Your task to perform on an android device: What is the news today? Image 0: 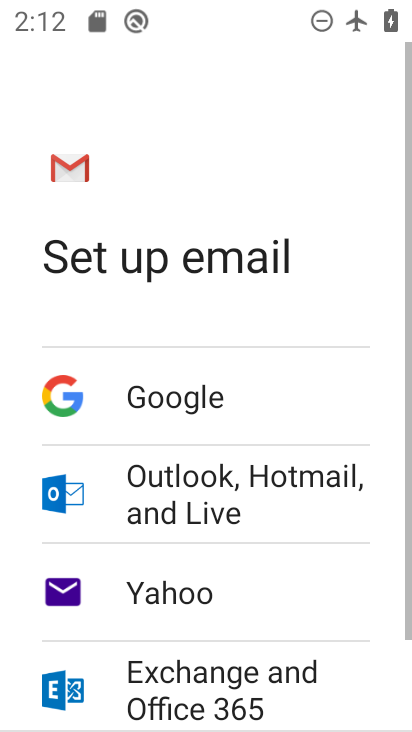
Step 0: press home button
Your task to perform on an android device: What is the news today? Image 1: 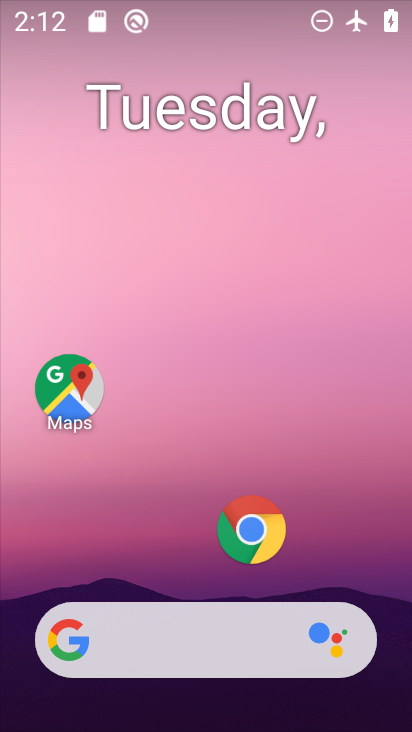
Step 1: click (187, 618)
Your task to perform on an android device: What is the news today? Image 2: 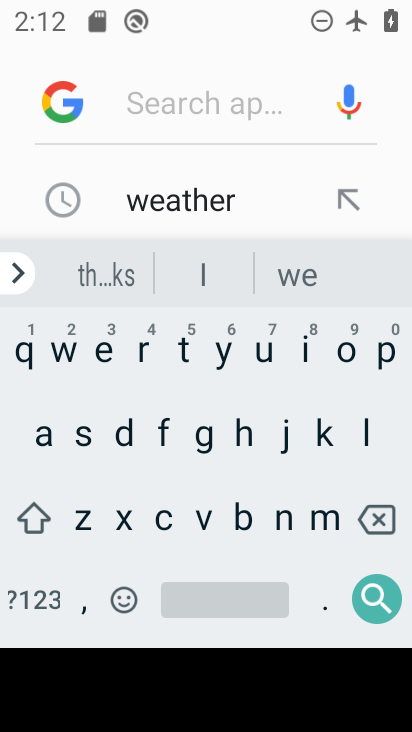
Step 2: click (276, 513)
Your task to perform on an android device: What is the news today? Image 3: 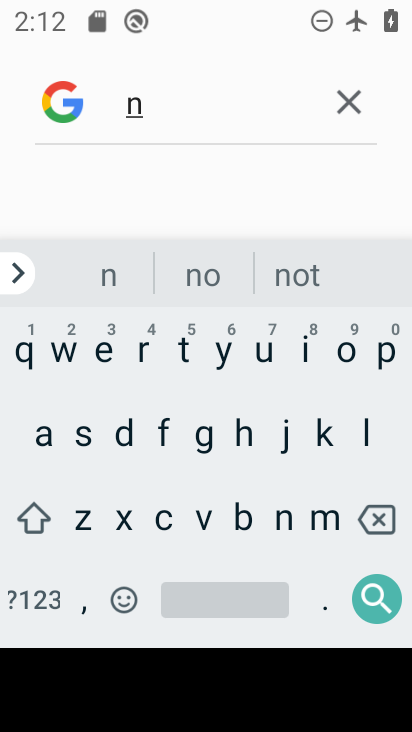
Step 3: click (95, 350)
Your task to perform on an android device: What is the news today? Image 4: 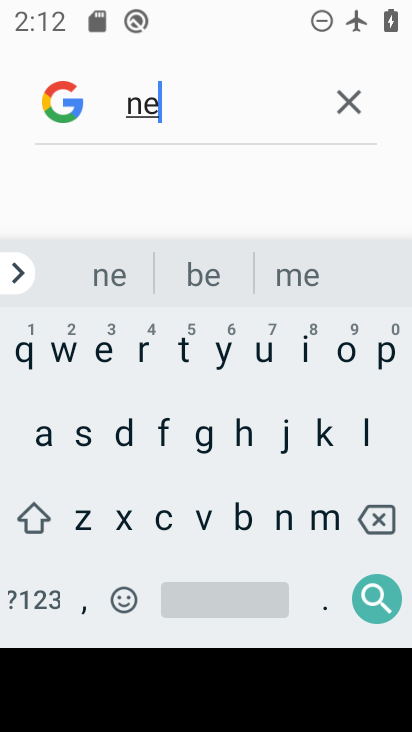
Step 4: click (58, 343)
Your task to perform on an android device: What is the news today? Image 5: 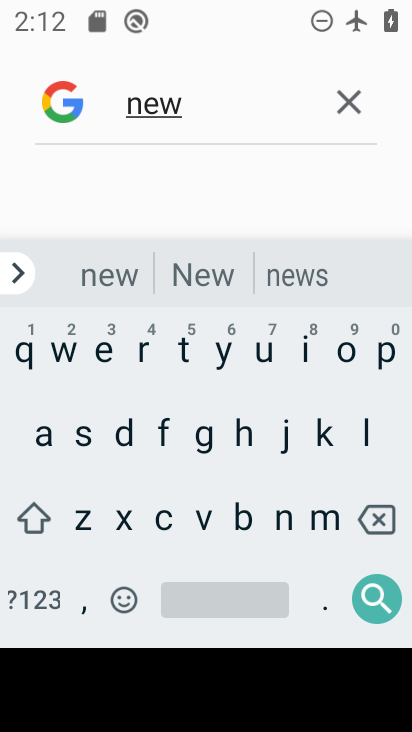
Step 5: press home button
Your task to perform on an android device: What is the news today? Image 6: 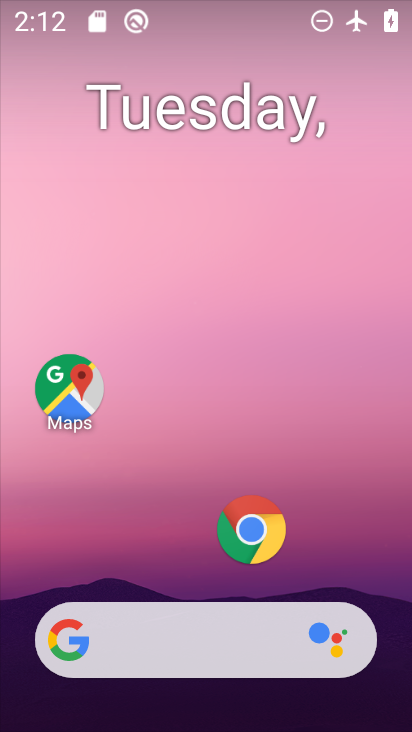
Step 6: drag from (234, 679) to (235, 260)
Your task to perform on an android device: What is the news today? Image 7: 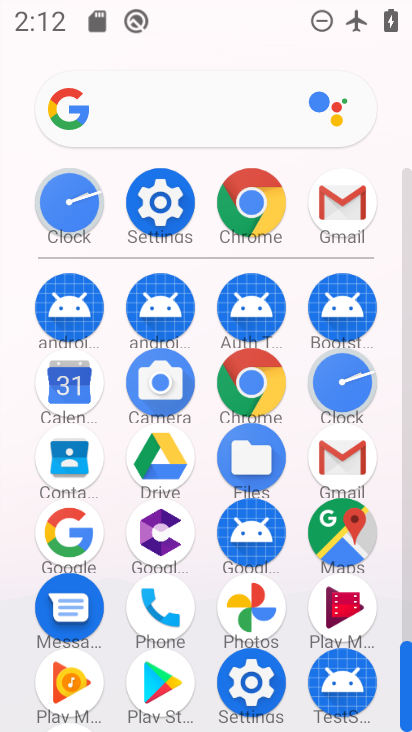
Step 7: click (170, 202)
Your task to perform on an android device: What is the news today? Image 8: 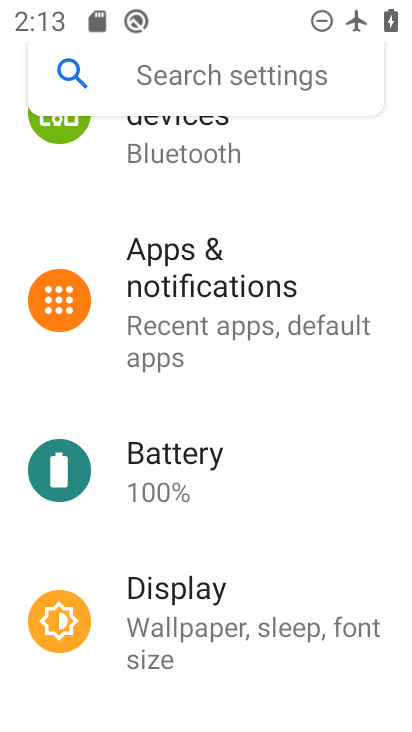
Step 8: drag from (146, 208) to (148, 482)
Your task to perform on an android device: What is the news today? Image 9: 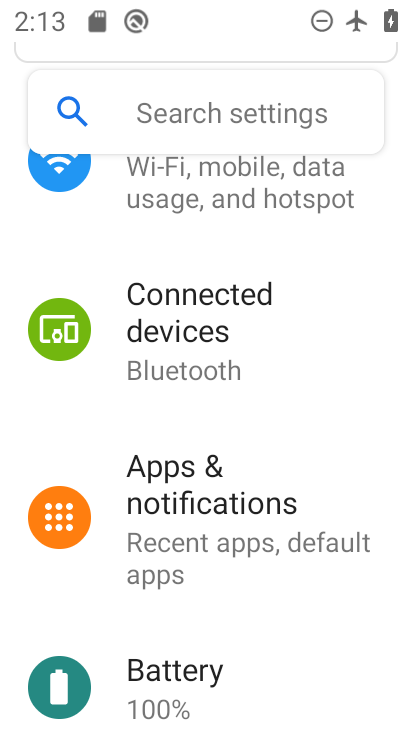
Step 9: click (161, 202)
Your task to perform on an android device: What is the news today? Image 10: 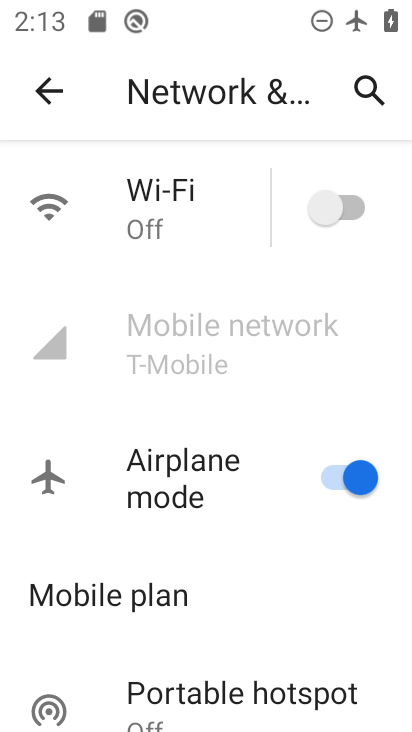
Step 10: click (346, 478)
Your task to perform on an android device: What is the news today? Image 11: 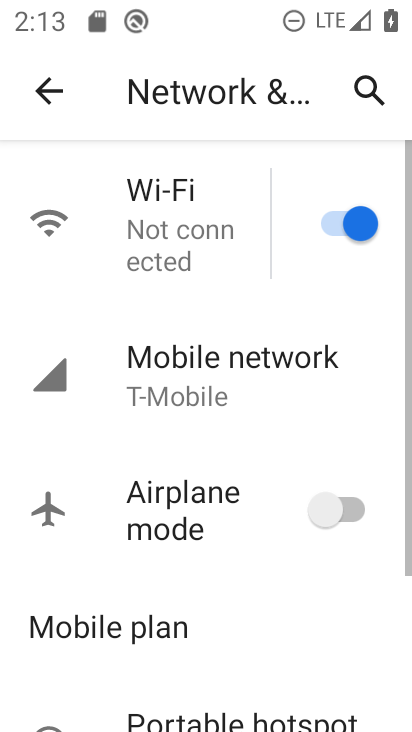
Step 11: press home button
Your task to perform on an android device: What is the news today? Image 12: 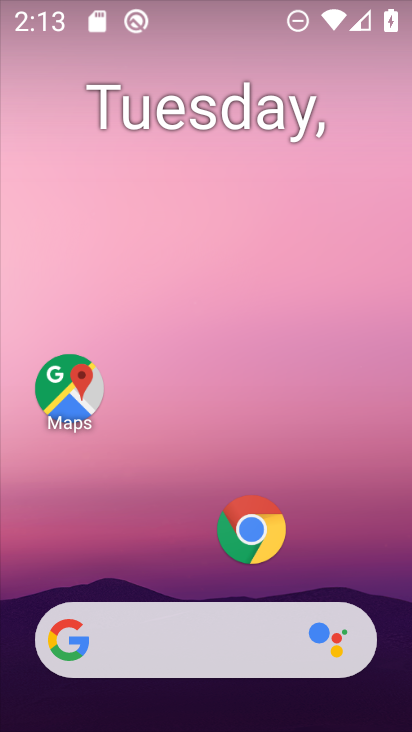
Step 12: click (171, 626)
Your task to perform on an android device: What is the news today? Image 13: 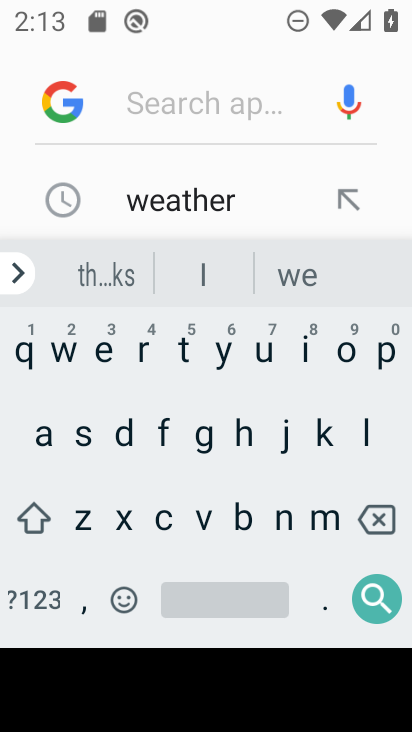
Step 13: click (285, 523)
Your task to perform on an android device: What is the news today? Image 14: 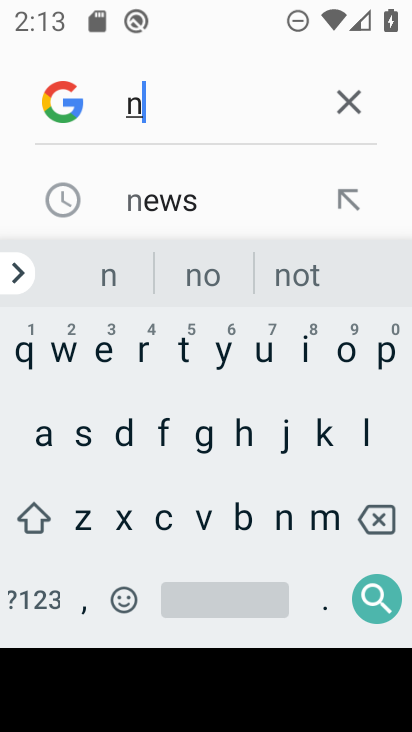
Step 14: click (99, 363)
Your task to perform on an android device: What is the news today? Image 15: 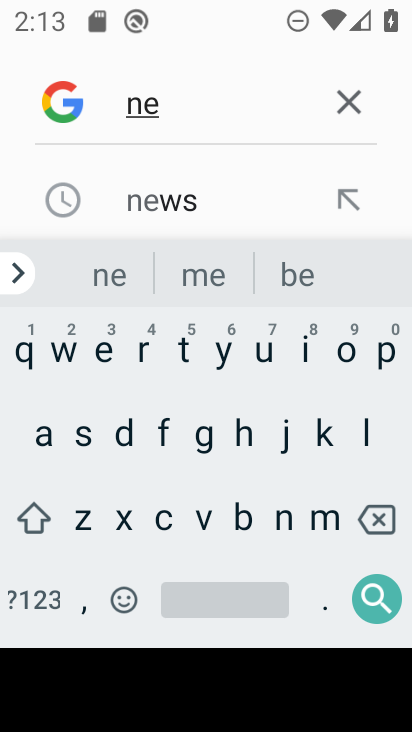
Step 15: click (166, 204)
Your task to perform on an android device: What is the news today? Image 16: 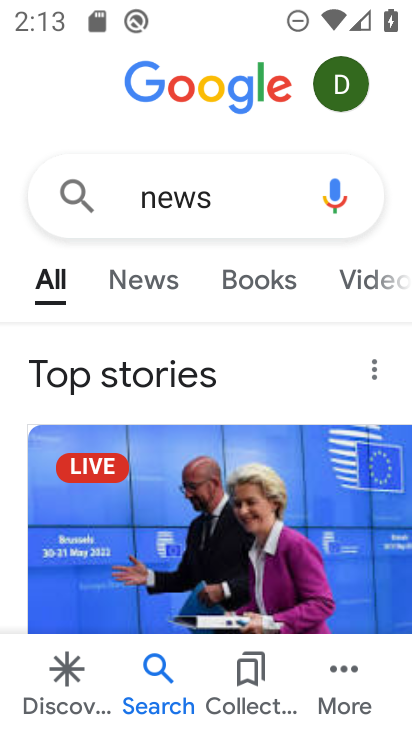
Step 16: task complete